Your task to perform on an android device: Open Chrome and go to settings Image 0: 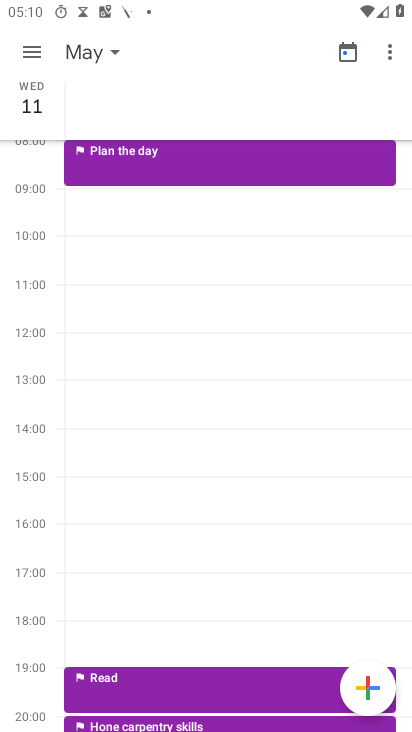
Step 0: press home button
Your task to perform on an android device: Open Chrome and go to settings Image 1: 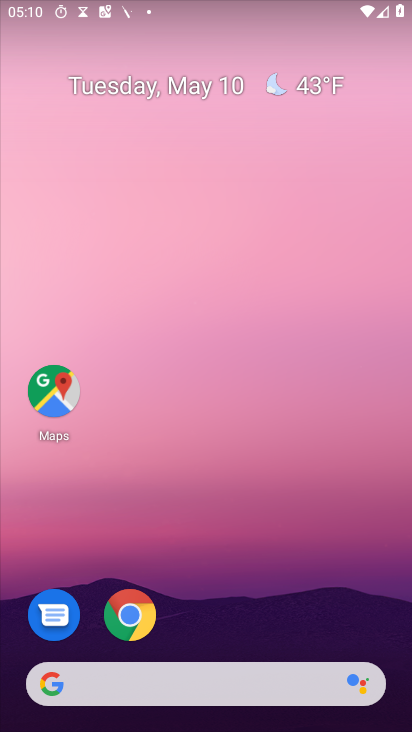
Step 1: drag from (299, 659) to (402, 79)
Your task to perform on an android device: Open Chrome and go to settings Image 2: 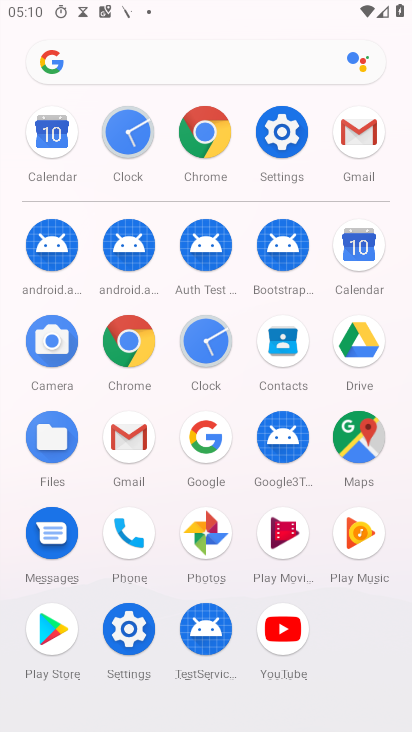
Step 2: click (143, 344)
Your task to perform on an android device: Open Chrome and go to settings Image 3: 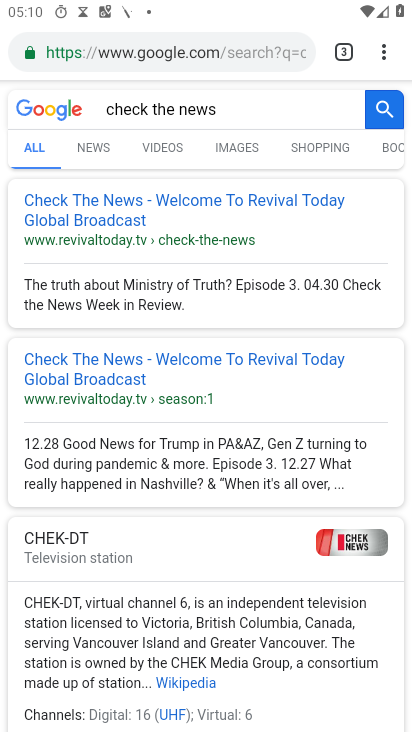
Step 3: click (382, 43)
Your task to perform on an android device: Open Chrome and go to settings Image 4: 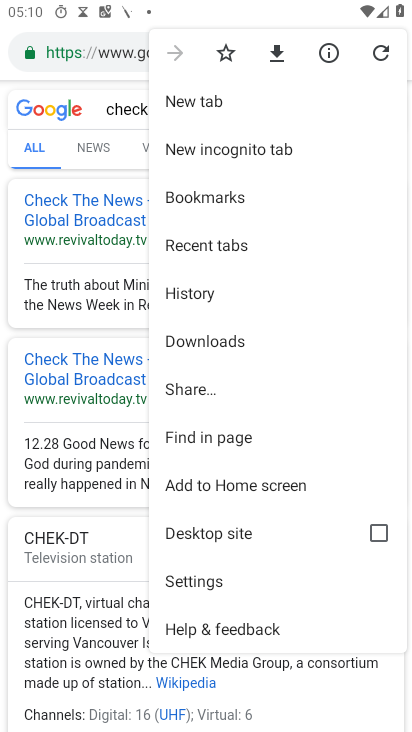
Step 4: click (229, 579)
Your task to perform on an android device: Open Chrome and go to settings Image 5: 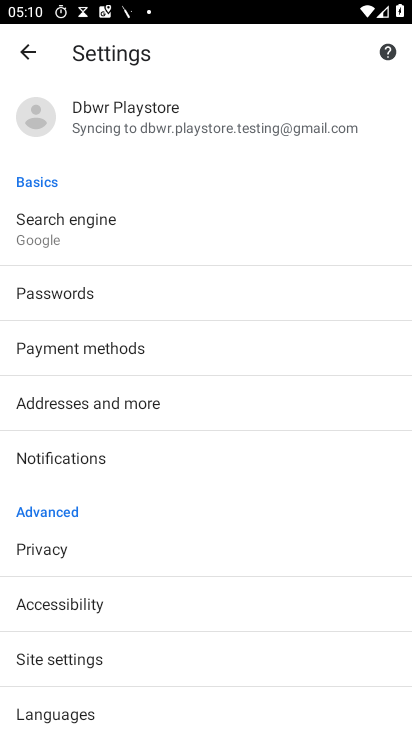
Step 5: task complete